Your task to perform on an android device: Open Yahoo.com Image 0: 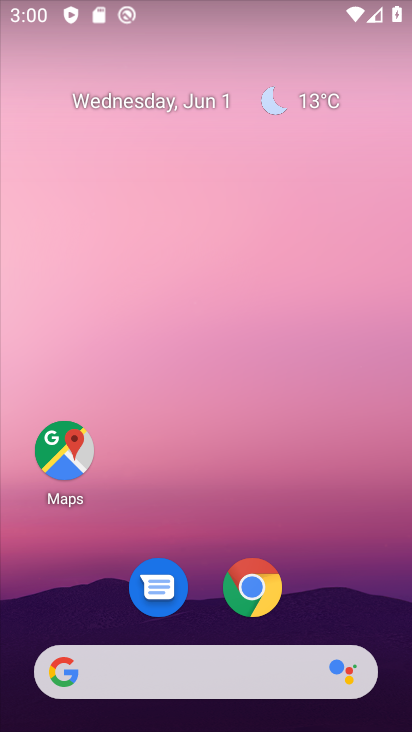
Step 0: drag from (306, 572) to (185, 10)
Your task to perform on an android device: Open Yahoo.com Image 1: 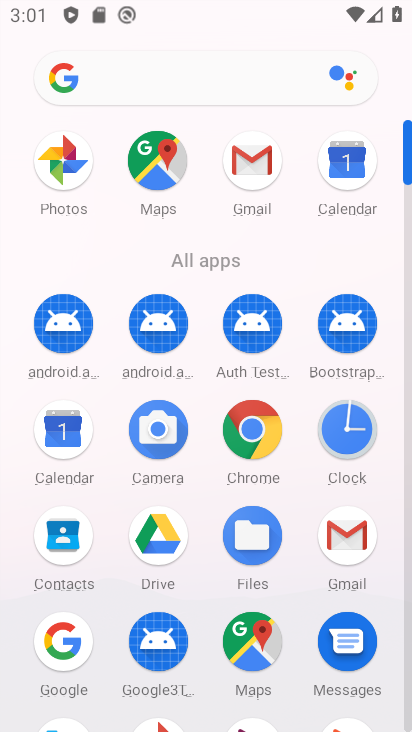
Step 1: drag from (20, 478) to (22, 207)
Your task to perform on an android device: Open Yahoo.com Image 2: 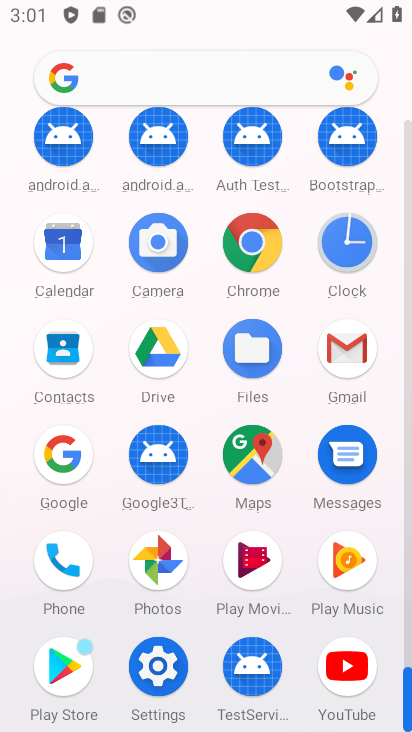
Step 2: click (250, 239)
Your task to perform on an android device: Open Yahoo.com Image 3: 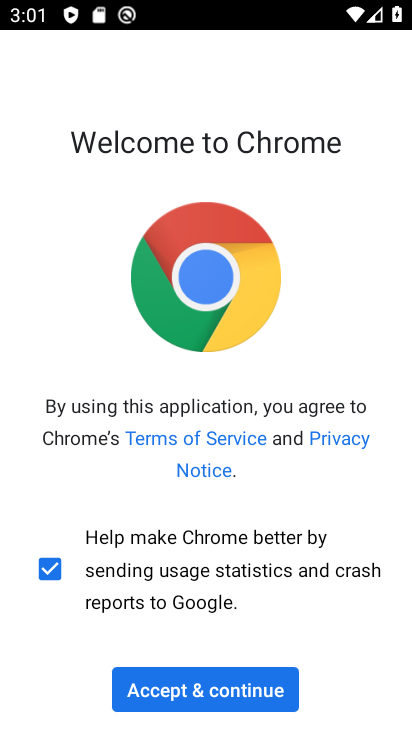
Step 3: click (216, 694)
Your task to perform on an android device: Open Yahoo.com Image 4: 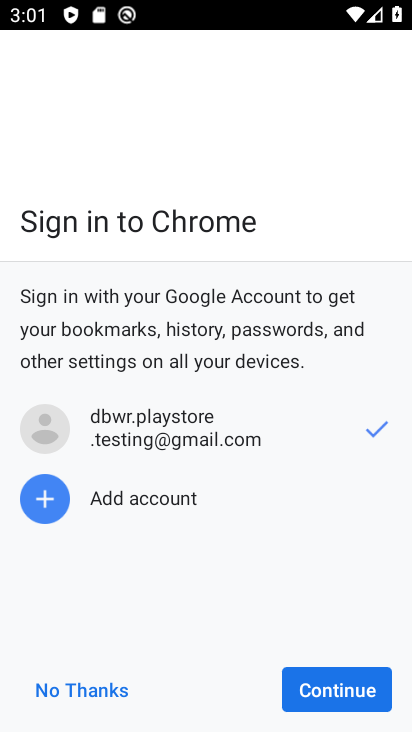
Step 4: click (336, 693)
Your task to perform on an android device: Open Yahoo.com Image 5: 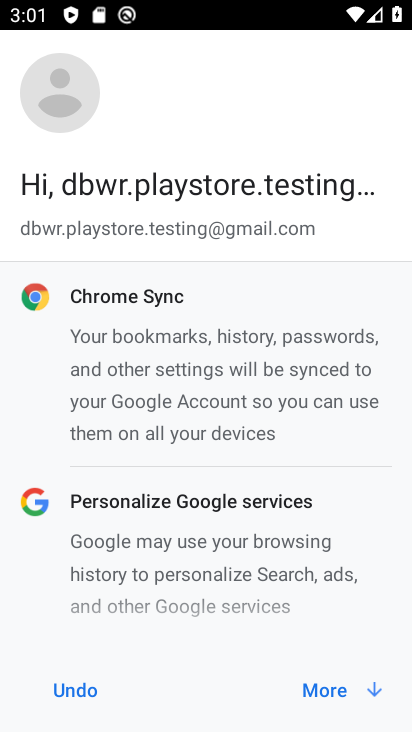
Step 5: click (331, 689)
Your task to perform on an android device: Open Yahoo.com Image 6: 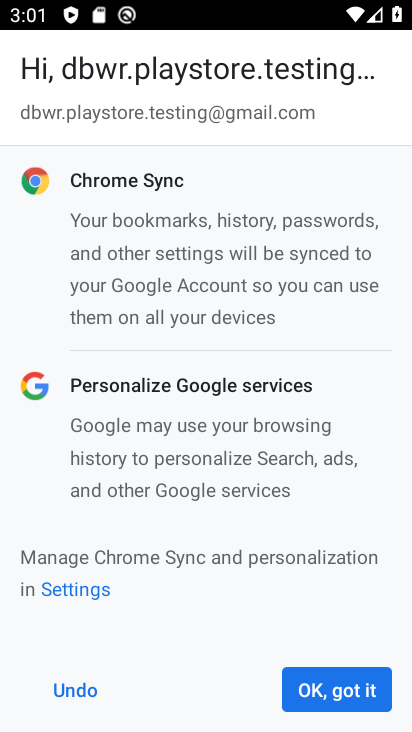
Step 6: click (331, 689)
Your task to perform on an android device: Open Yahoo.com Image 7: 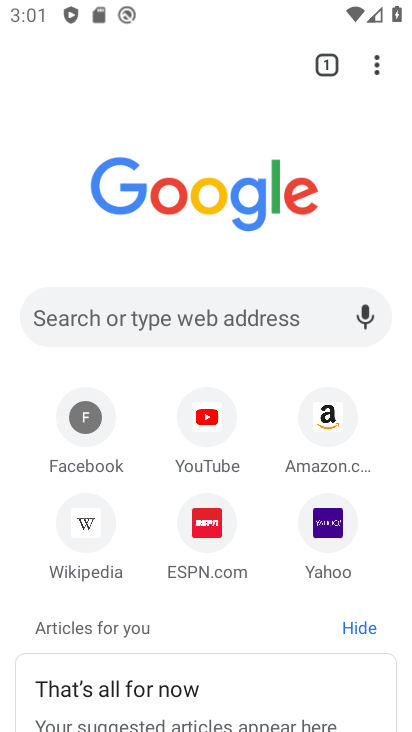
Step 7: click (323, 528)
Your task to perform on an android device: Open Yahoo.com Image 8: 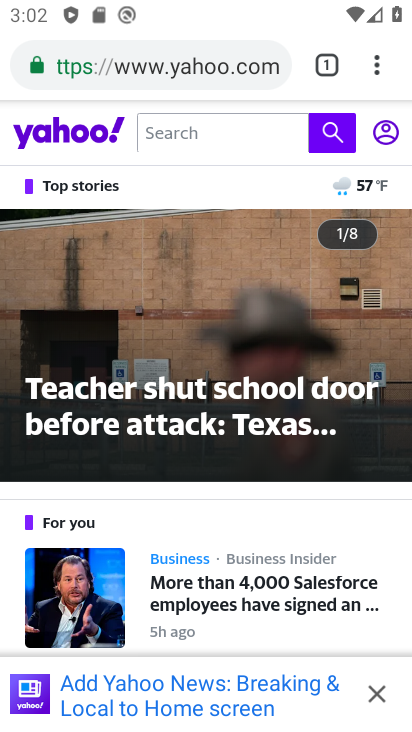
Step 8: task complete